Your task to perform on an android device: turn on the 24-hour format for clock Image 0: 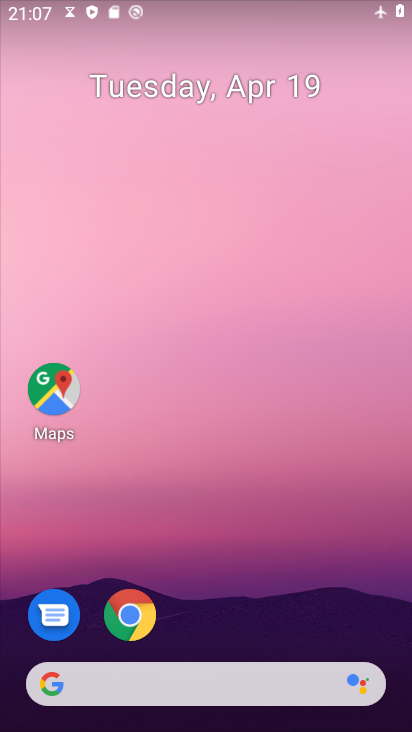
Step 0: drag from (351, 480) to (317, 25)
Your task to perform on an android device: turn on the 24-hour format for clock Image 1: 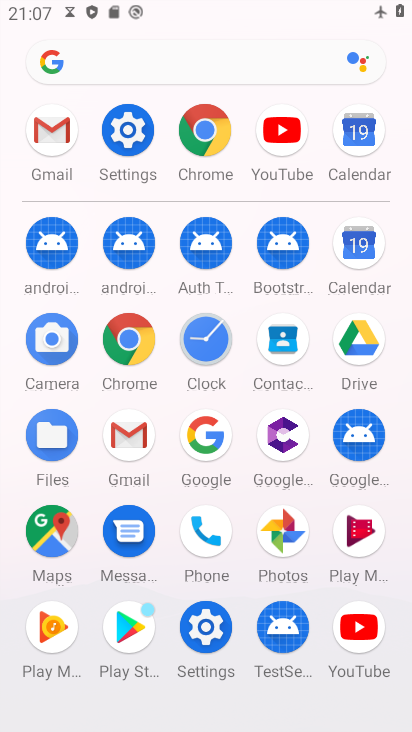
Step 1: drag from (19, 514) to (21, 234)
Your task to perform on an android device: turn on the 24-hour format for clock Image 2: 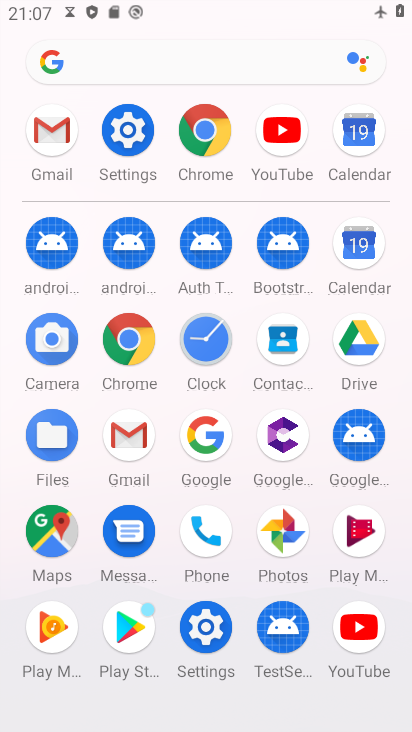
Step 2: click (204, 336)
Your task to perform on an android device: turn on the 24-hour format for clock Image 3: 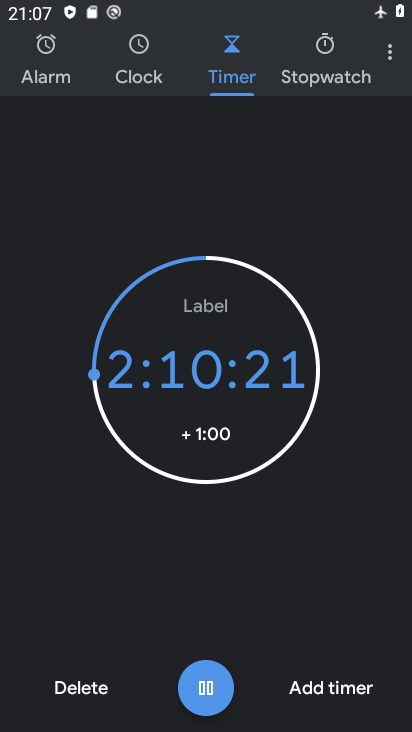
Step 3: click (391, 55)
Your task to perform on an android device: turn on the 24-hour format for clock Image 4: 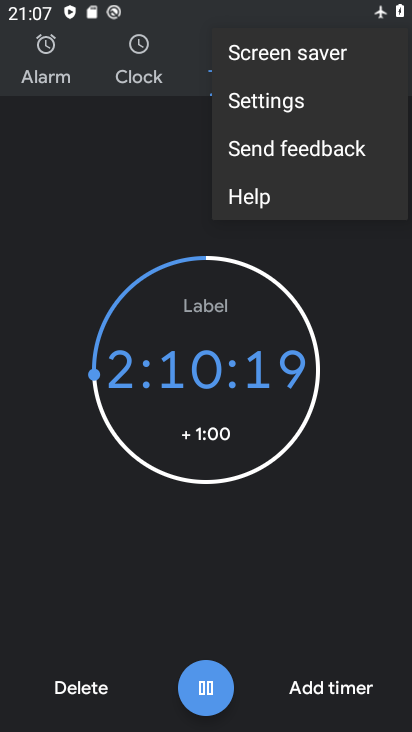
Step 4: click (300, 108)
Your task to perform on an android device: turn on the 24-hour format for clock Image 5: 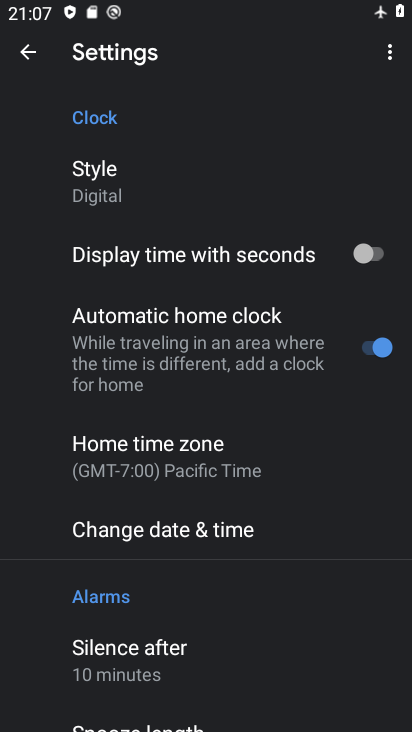
Step 5: click (224, 531)
Your task to perform on an android device: turn on the 24-hour format for clock Image 6: 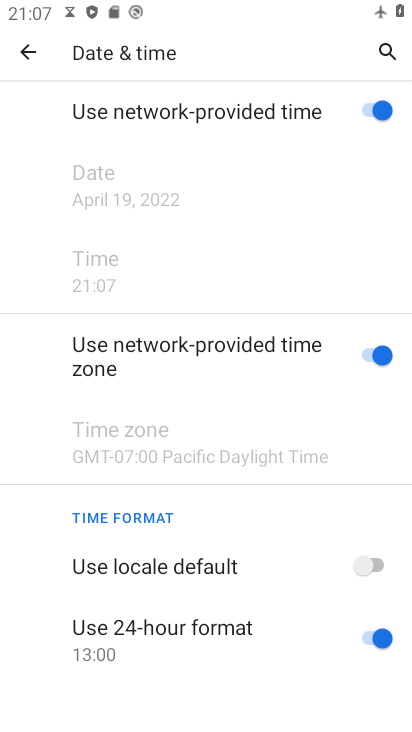
Step 6: task complete